Your task to perform on an android device: Open Android settings Image 0: 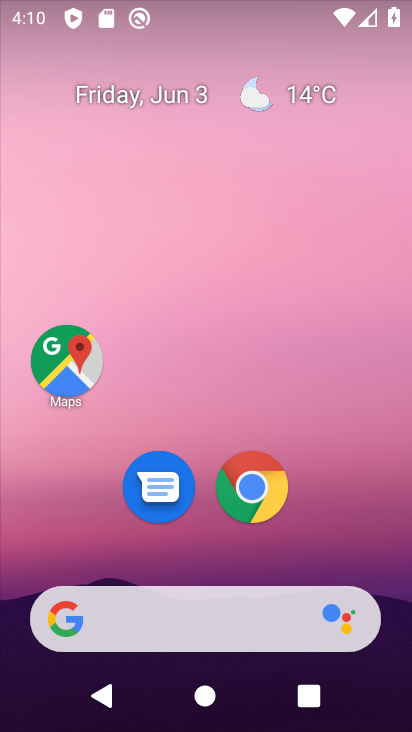
Step 0: drag from (200, 484) to (250, 15)
Your task to perform on an android device: Open Android settings Image 1: 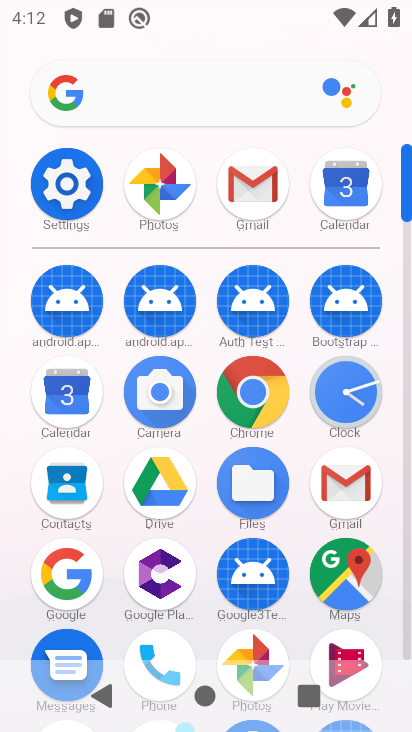
Step 1: click (50, 176)
Your task to perform on an android device: Open Android settings Image 2: 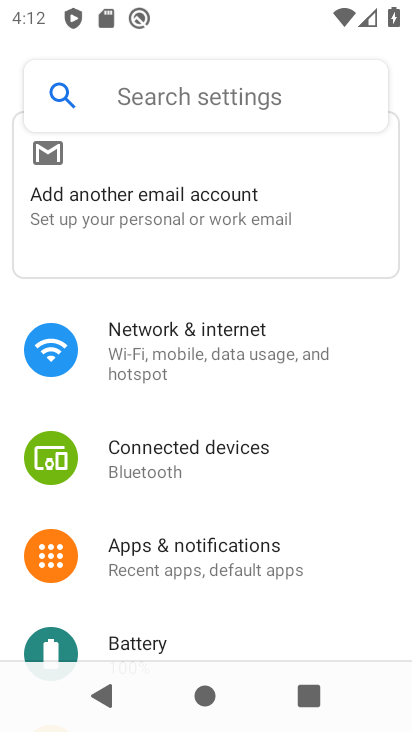
Step 2: drag from (243, 600) to (299, 58)
Your task to perform on an android device: Open Android settings Image 3: 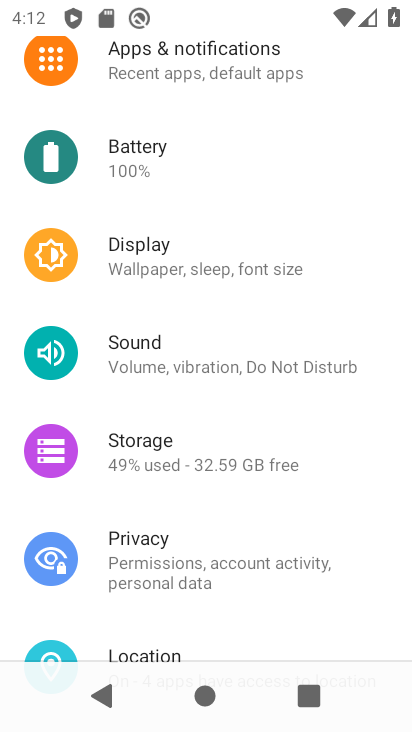
Step 3: drag from (257, 545) to (285, 96)
Your task to perform on an android device: Open Android settings Image 4: 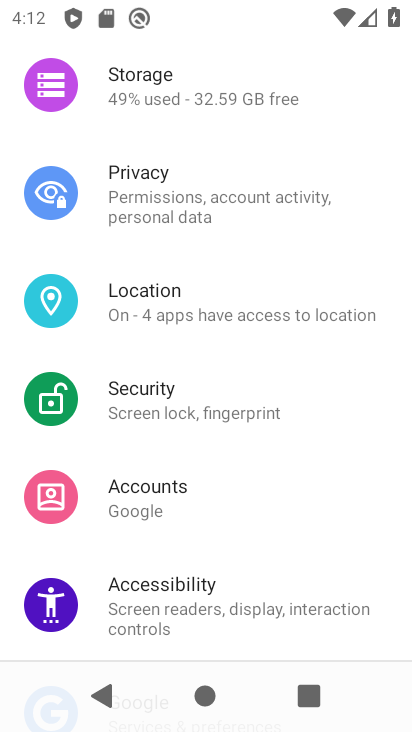
Step 4: drag from (191, 606) to (260, 75)
Your task to perform on an android device: Open Android settings Image 5: 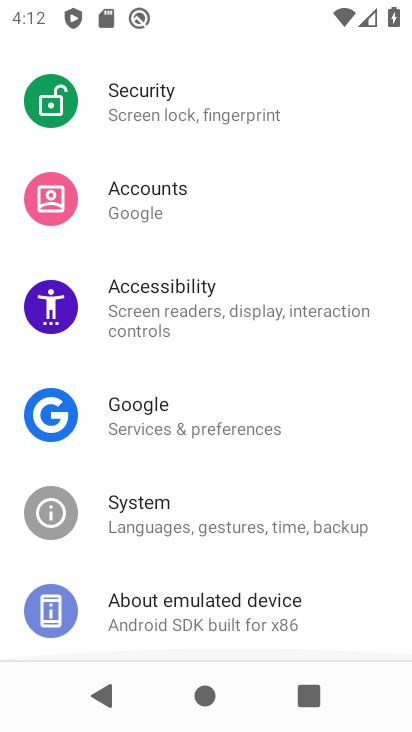
Step 5: drag from (255, 584) to (270, 22)
Your task to perform on an android device: Open Android settings Image 6: 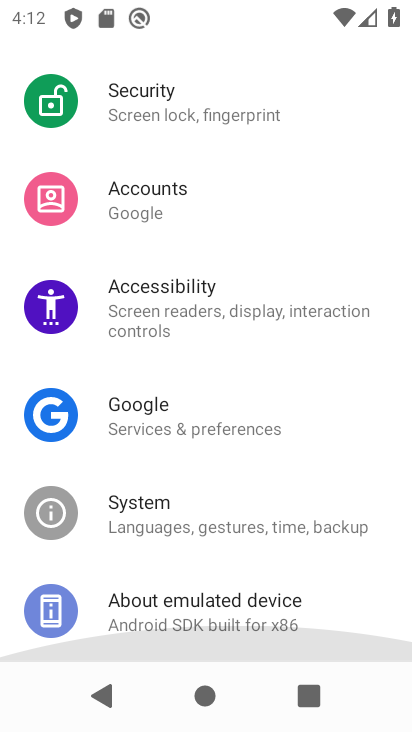
Step 6: drag from (264, 546) to (263, 88)
Your task to perform on an android device: Open Android settings Image 7: 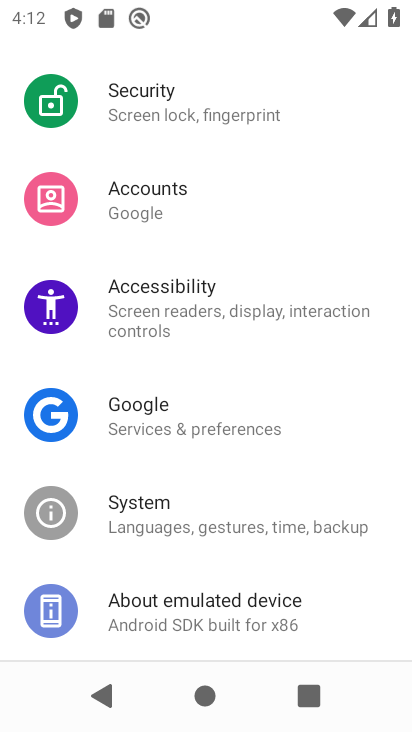
Step 7: click (149, 612)
Your task to perform on an android device: Open Android settings Image 8: 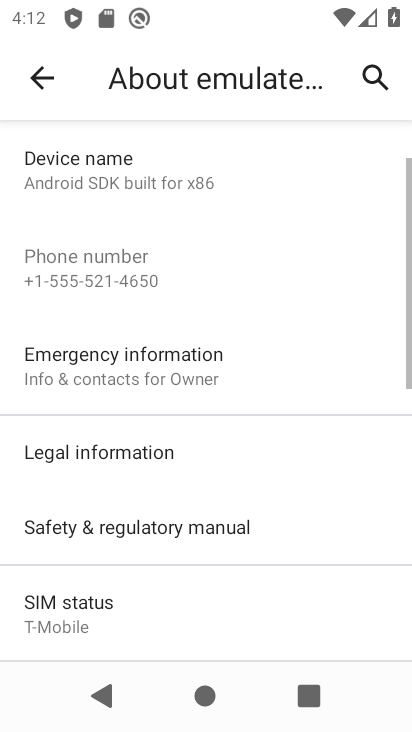
Step 8: task complete